Your task to perform on an android device: Go to location settings Image 0: 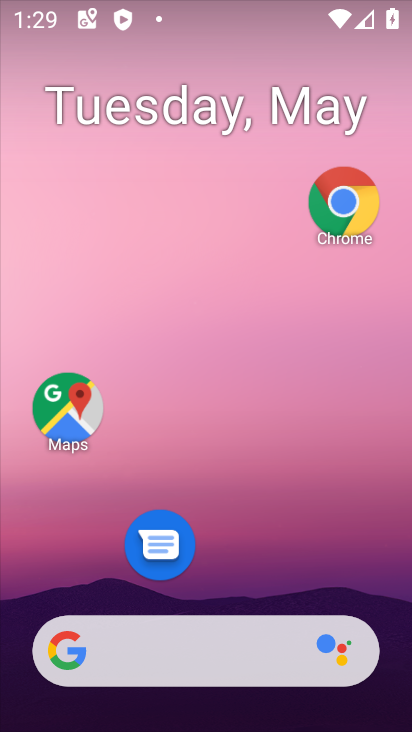
Step 0: drag from (205, 582) to (368, 128)
Your task to perform on an android device: Go to location settings Image 1: 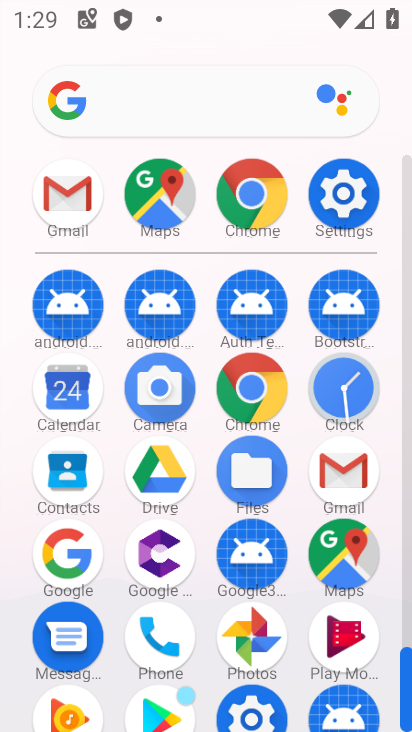
Step 1: click (339, 167)
Your task to perform on an android device: Go to location settings Image 2: 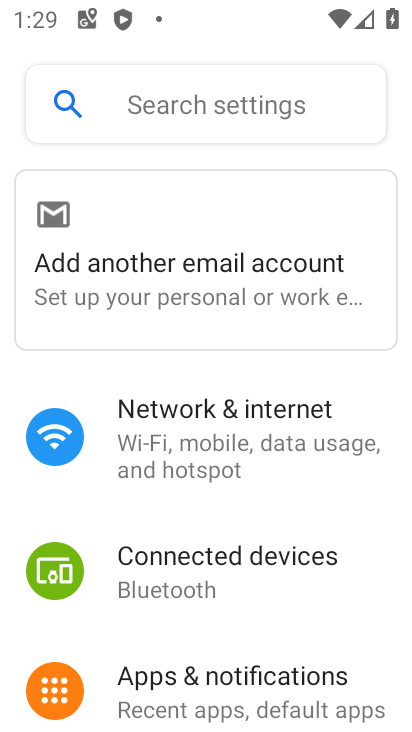
Step 2: drag from (132, 602) to (209, 155)
Your task to perform on an android device: Go to location settings Image 3: 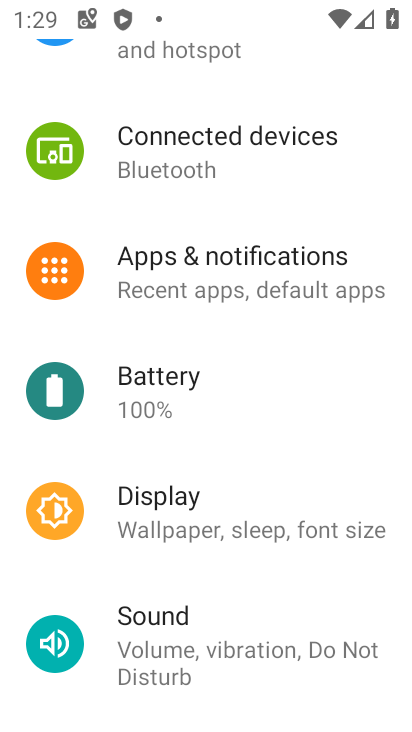
Step 3: drag from (95, 550) to (189, 281)
Your task to perform on an android device: Go to location settings Image 4: 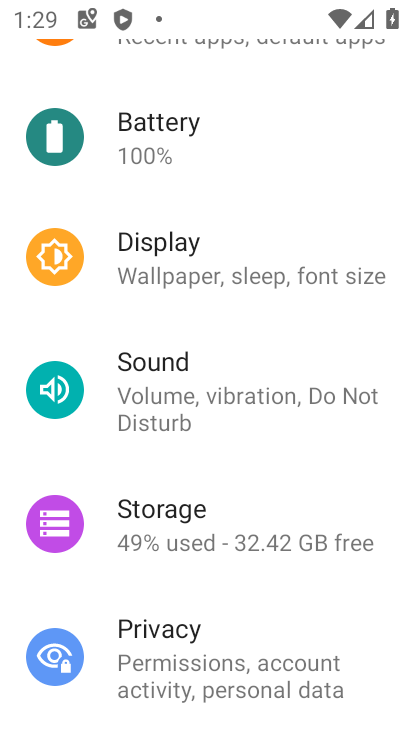
Step 4: drag from (86, 596) to (214, 168)
Your task to perform on an android device: Go to location settings Image 5: 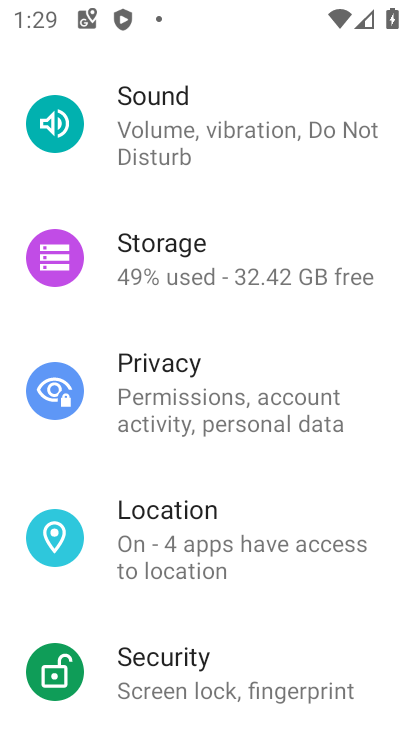
Step 5: click (135, 549)
Your task to perform on an android device: Go to location settings Image 6: 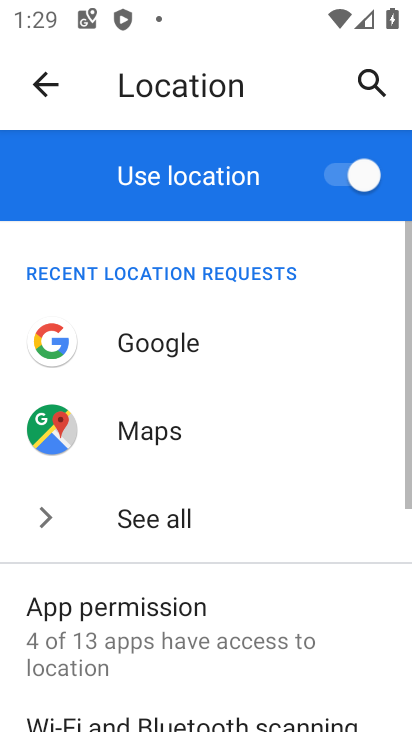
Step 6: task complete